Your task to perform on an android device: What is the news today? Image 0: 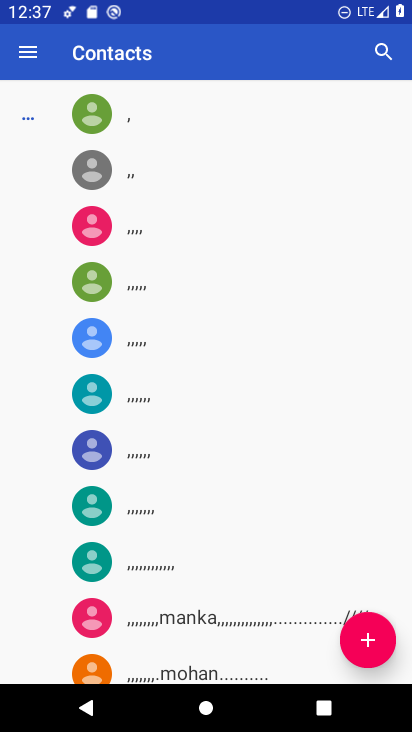
Step 0: press home button
Your task to perform on an android device: What is the news today? Image 1: 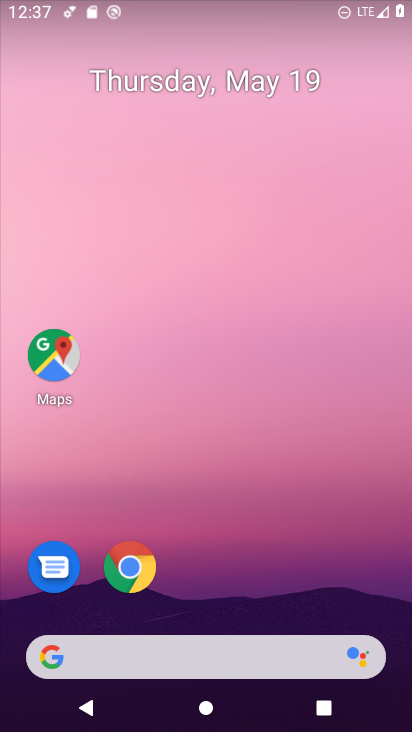
Step 1: click (278, 651)
Your task to perform on an android device: What is the news today? Image 2: 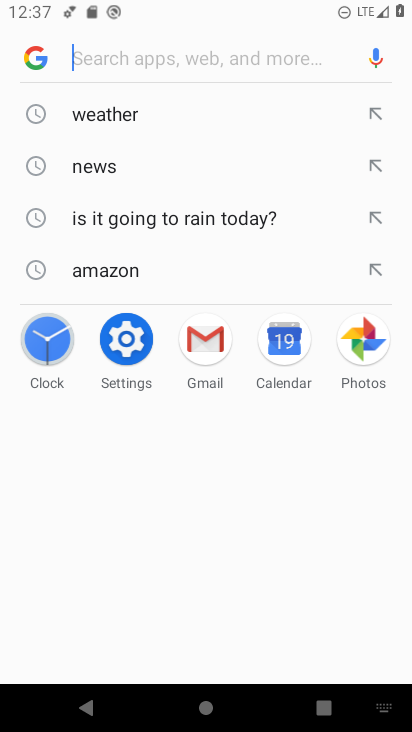
Step 2: click (91, 164)
Your task to perform on an android device: What is the news today? Image 3: 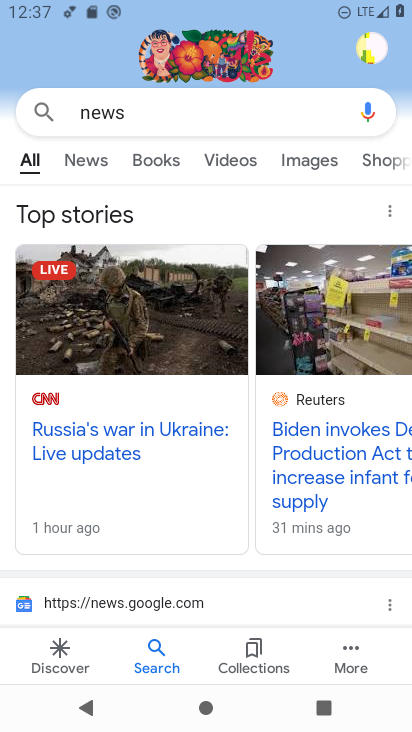
Step 3: click (91, 148)
Your task to perform on an android device: What is the news today? Image 4: 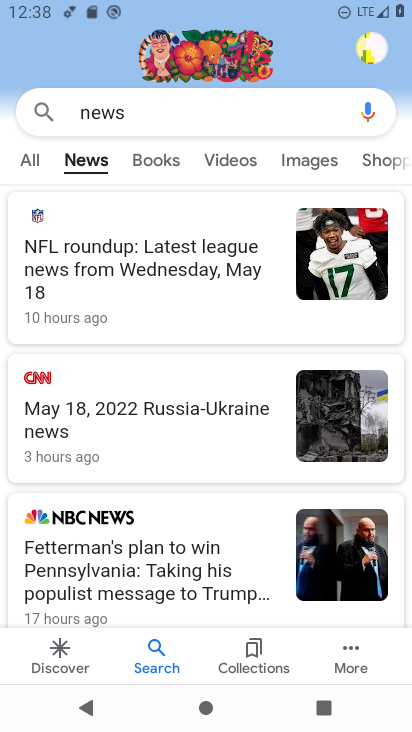
Step 4: task complete